Your task to perform on an android device: delete browsing data in the chrome app Image 0: 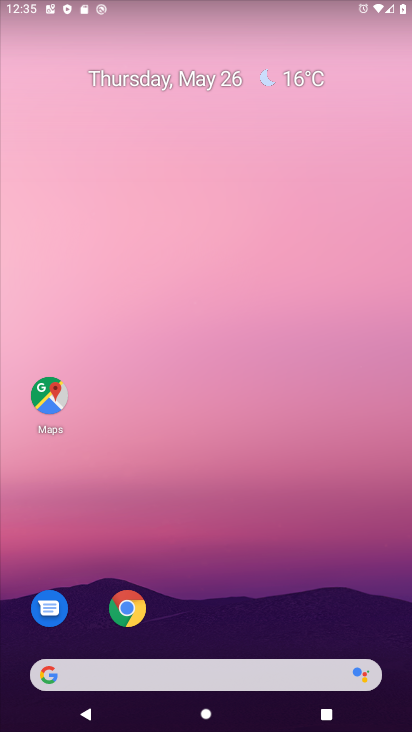
Step 0: click (126, 611)
Your task to perform on an android device: delete browsing data in the chrome app Image 1: 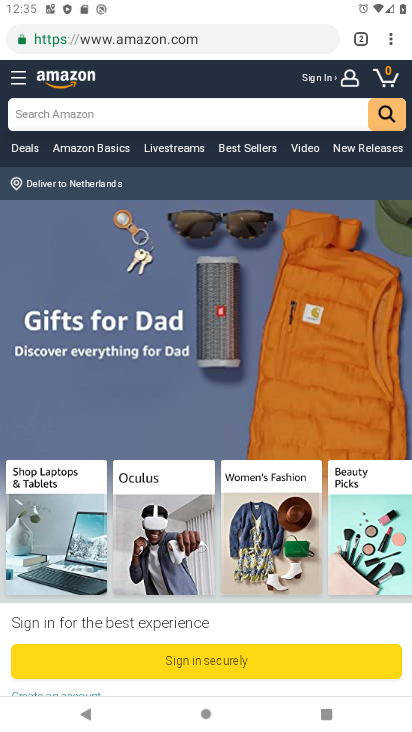
Step 1: click (392, 44)
Your task to perform on an android device: delete browsing data in the chrome app Image 2: 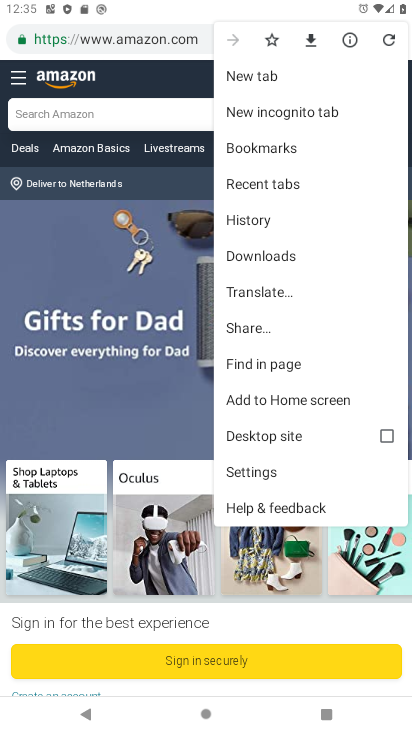
Step 2: click (253, 223)
Your task to perform on an android device: delete browsing data in the chrome app Image 3: 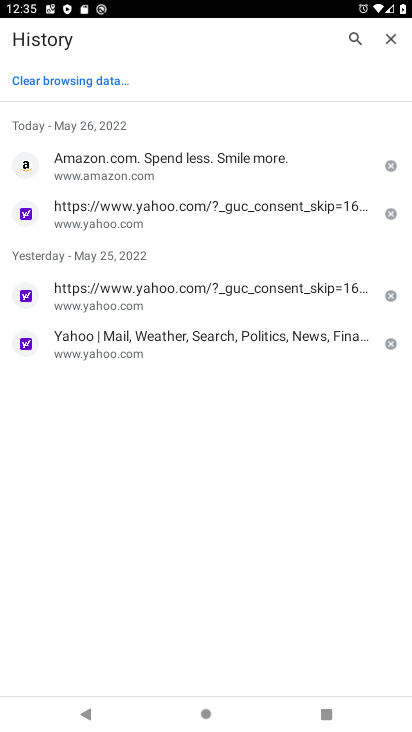
Step 3: click (80, 80)
Your task to perform on an android device: delete browsing data in the chrome app Image 4: 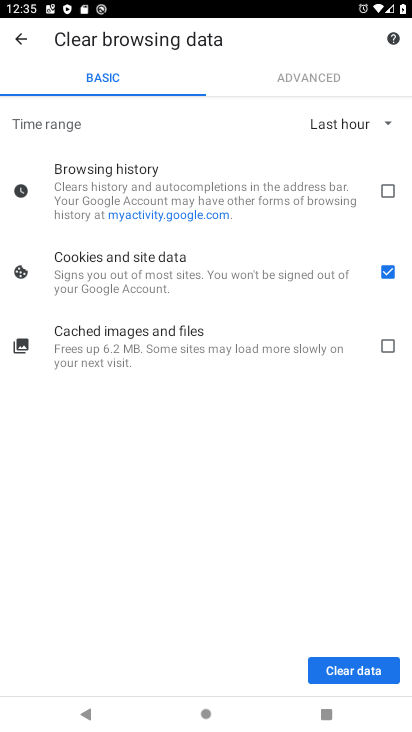
Step 4: click (387, 266)
Your task to perform on an android device: delete browsing data in the chrome app Image 5: 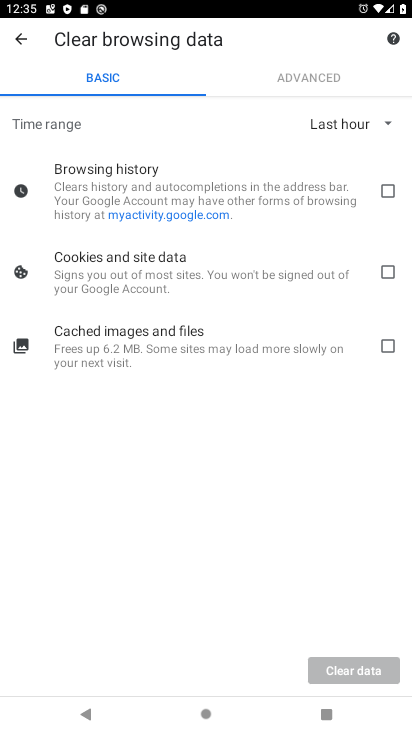
Step 5: click (387, 187)
Your task to perform on an android device: delete browsing data in the chrome app Image 6: 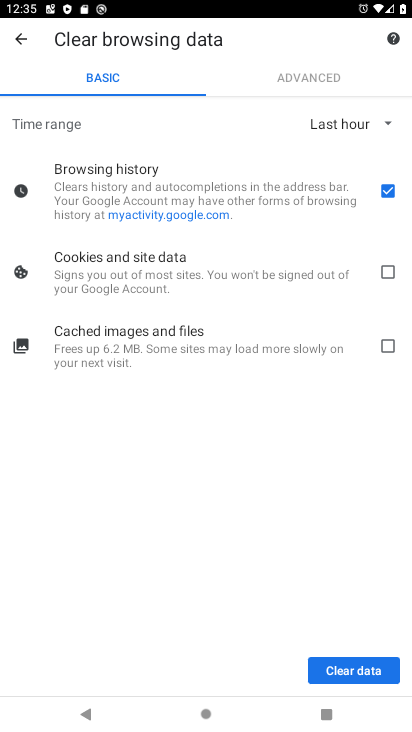
Step 6: click (351, 672)
Your task to perform on an android device: delete browsing data in the chrome app Image 7: 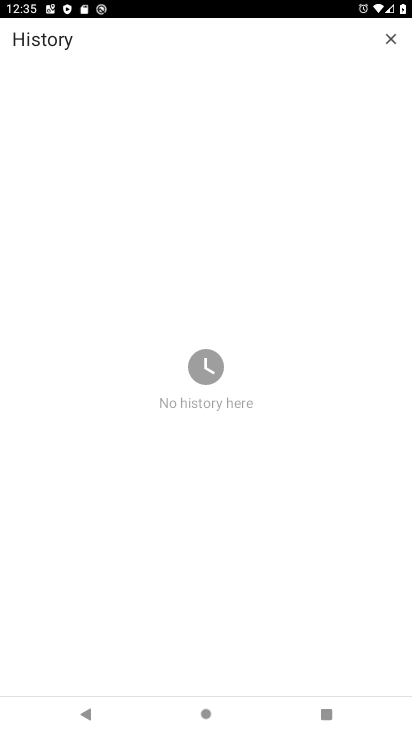
Step 7: task complete